Your task to perform on an android device: Open the map Image 0: 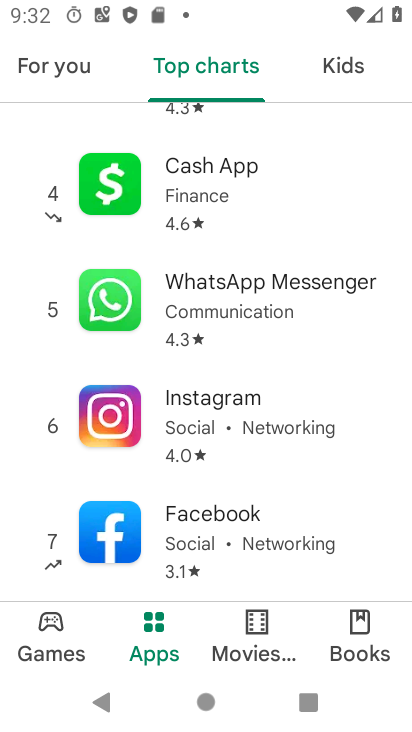
Step 0: press home button
Your task to perform on an android device: Open the map Image 1: 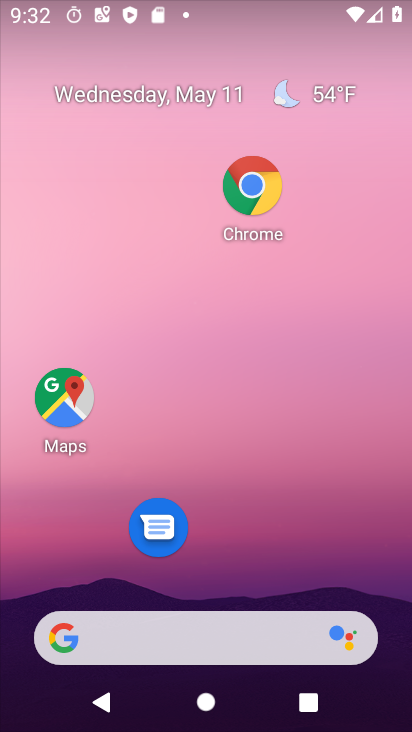
Step 1: click (67, 398)
Your task to perform on an android device: Open the map Image 2: 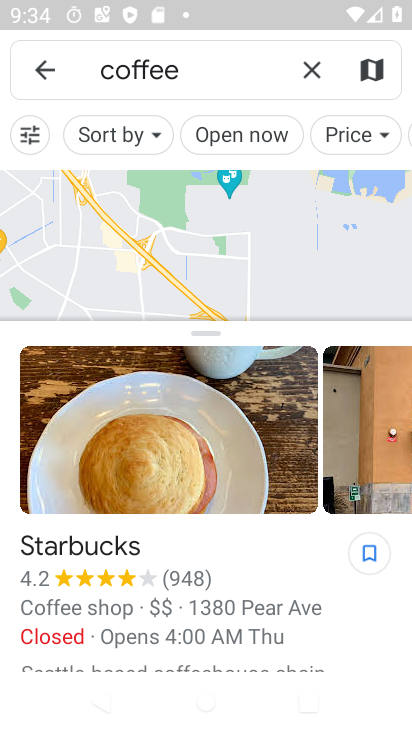
Step 2: task complete